Your task to perform on an android device: Show me the alarms in the clock app Image 0: 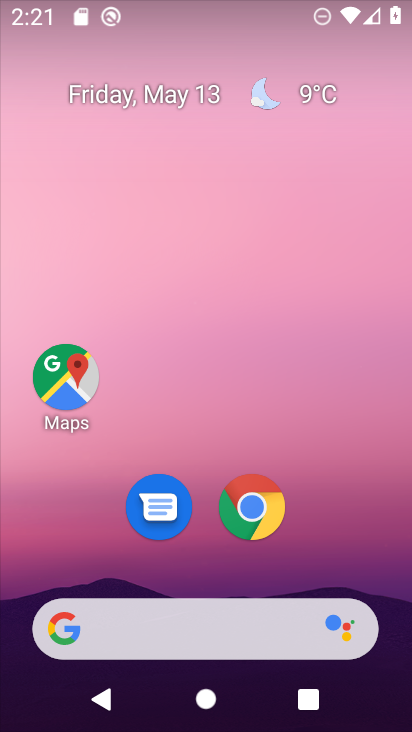
Step 0: drag from (387, 343) to (296, 0)
Your task to perform on an android device: Show me the alarms in the clock app Image 1: 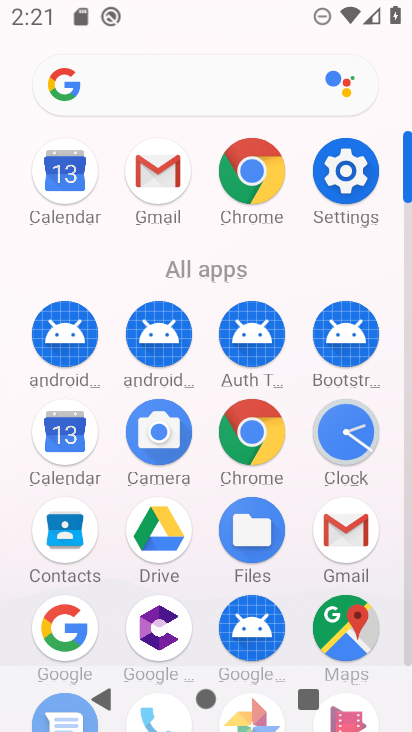
Step 1: click (360, 442)
Your task to perform on an android device: Show me the alarms in the clock app Image 2: 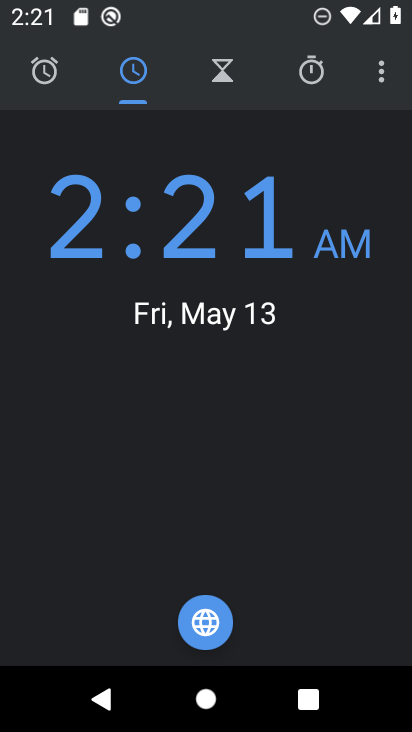
Step 2: click (373, 66)
Your task to perform on an android device: Show me the alarms in the clock app Image 3: 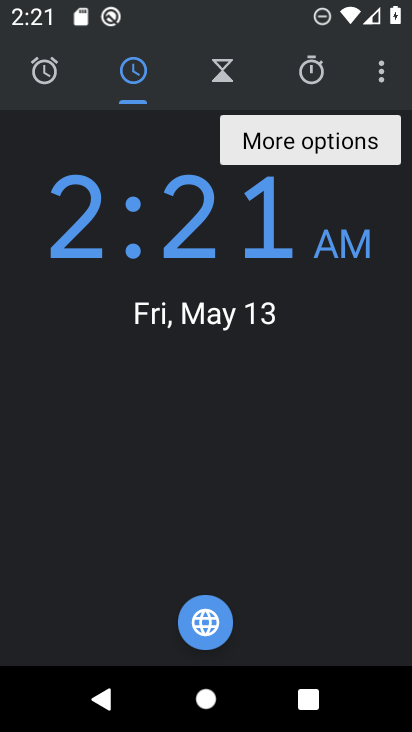
Step 3: click (373, 66)
Your task to perform on an android device: Show me the alarms in the clock app Image 4: 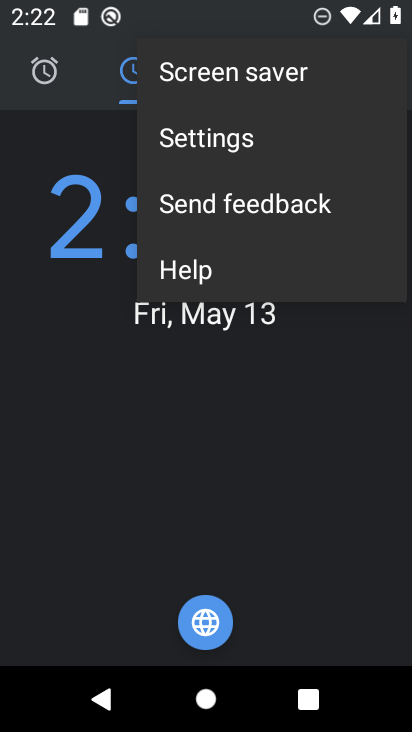
Step 4: click (204, 142)
Your task to perform on an android device: Show me the alarms in the clock app Image 5: 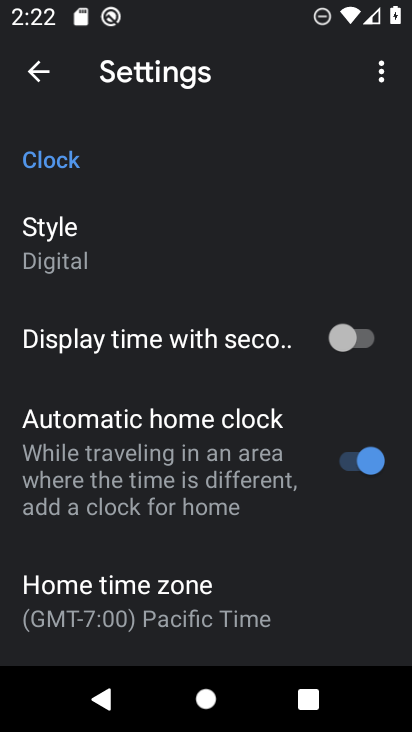
Step 5: click (49, 68)
Your task to perform on an android device: Show me the alarms in the clock app Image 6: 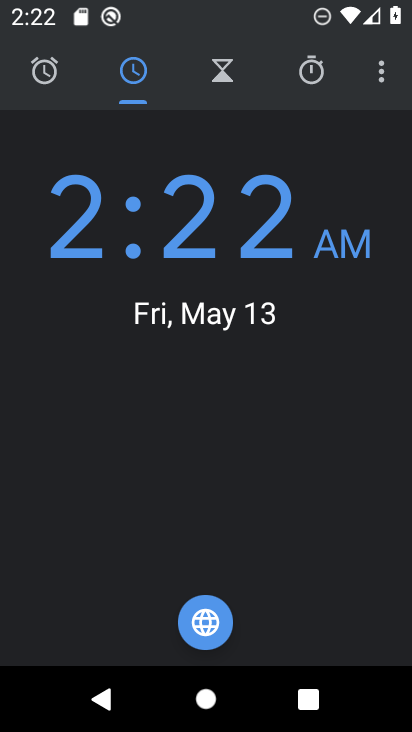
Step 6: click (36, 81)
Your task to perform on an android device: Show me the alarms in the clock app Image 7: 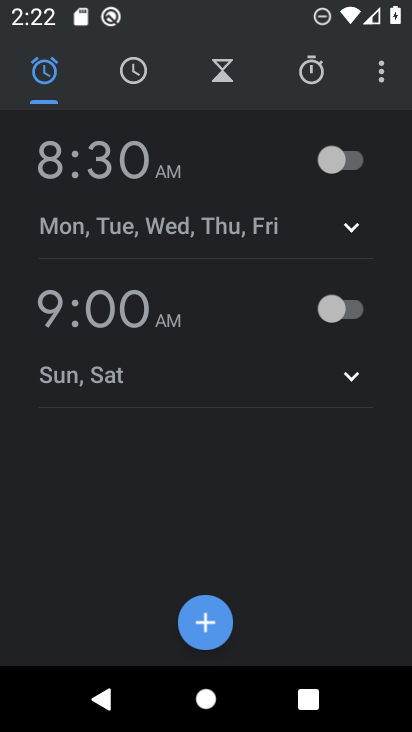
Step 7: click (340, 172)
Your task to perform on an android device: Show me the alarms in the clock app Image 8: 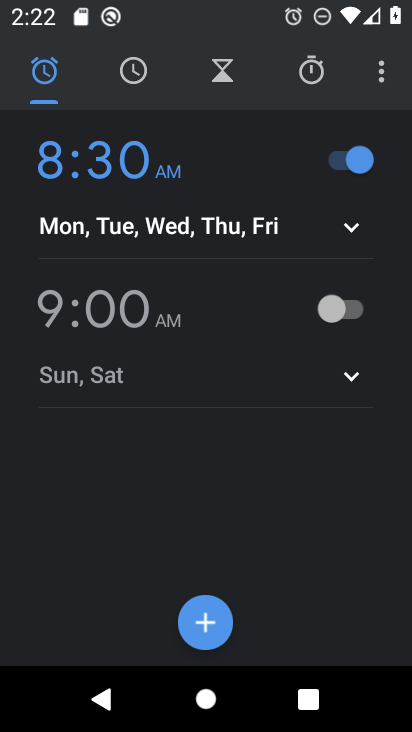
Step 8: task complete